Your task to perform on an android device: open the mobile data screen to see how much data has been used Image 0: 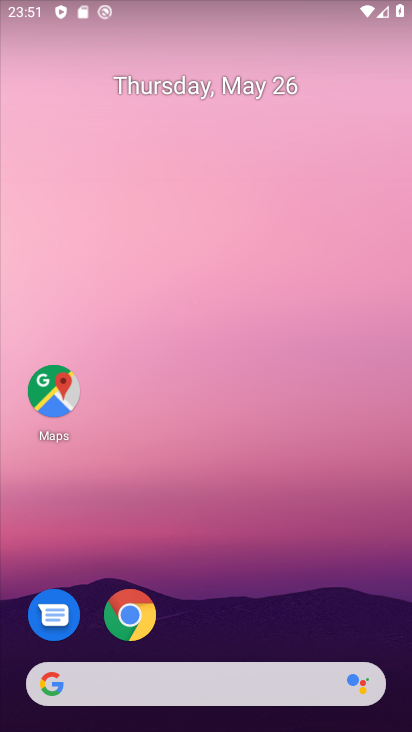
Step 0: drag from (374, 624) to (362, 254)
Your task to perform on an android device: open the mobile data screen to see how much data has been used Image 1: 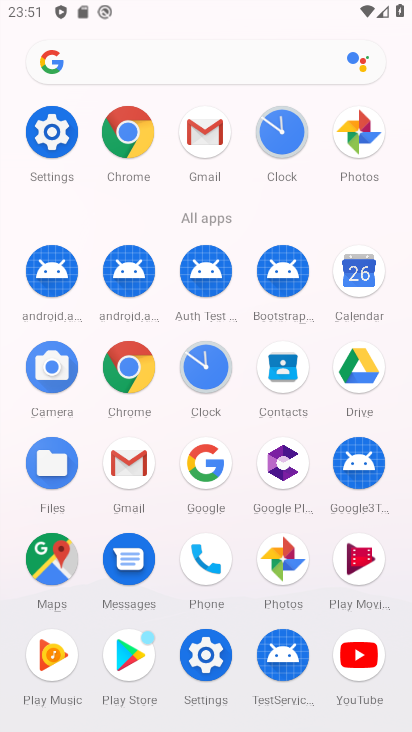
Step 1: click (52, 143)
Your task to perform on an android device: open the mobile data screen to see how much data has been used Image 2: 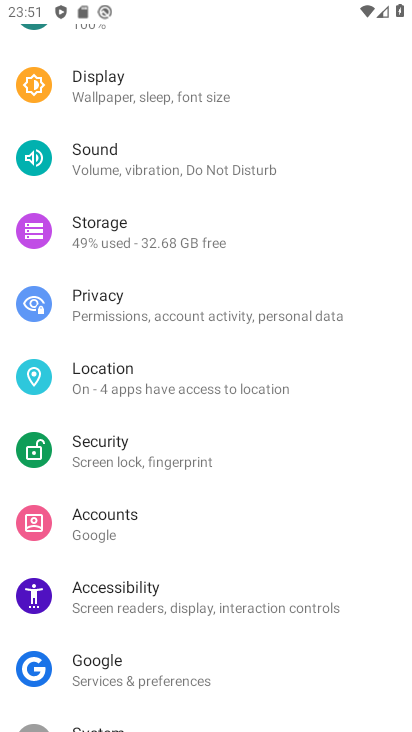
Step 2: drag from (340, 238) to (335, 398)
Your task to perform on an android device: open the mobile data screen to see how much data has been used Image 3: 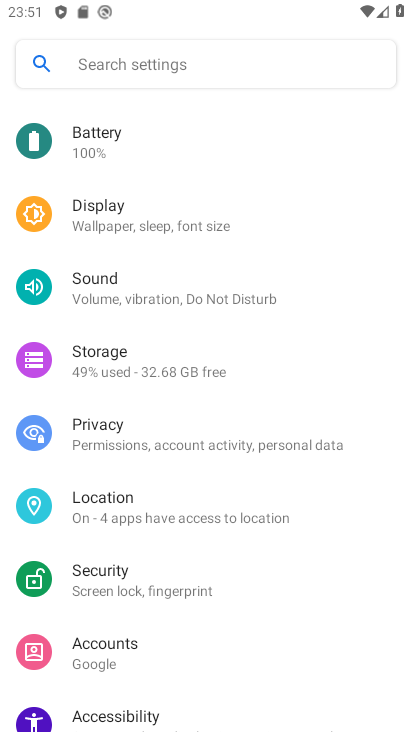
Step 3: drag from (340, 204) to (333, 353)
Your task to perform on an android device: open the mobile data screen to see how much data has been used Image 4: 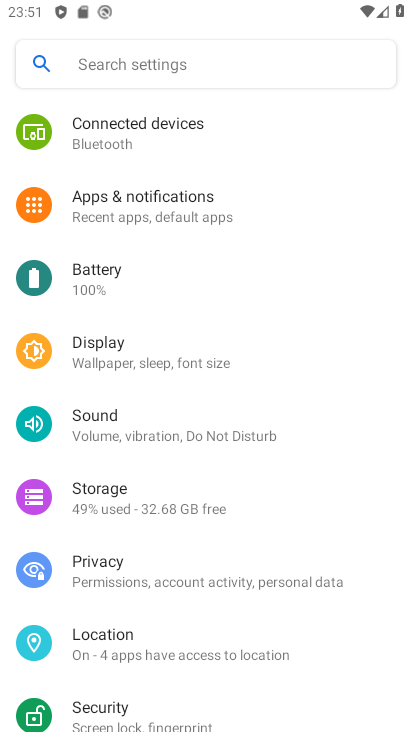
Step 4: drag from (341, 174) to (336, 299)
Your task to perform on an android device: open the mobile data screen to see how much data has been used Image 5: 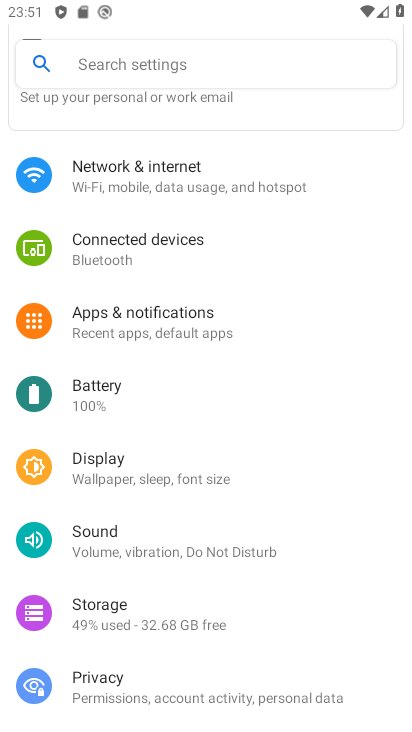
Step 5: drag from (347, 208) to (345, 341)
Your task to perform on an android device: open the mobile data screen to see how much data has been used Image 6: 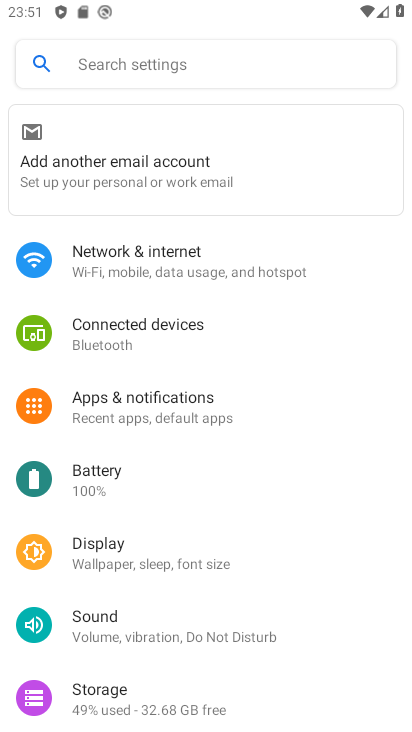
Step 6: drag from (321, 237) to (322, 346)
Your task to perform on an android device: open the mobile data screen to see how much data has been used Image 7: 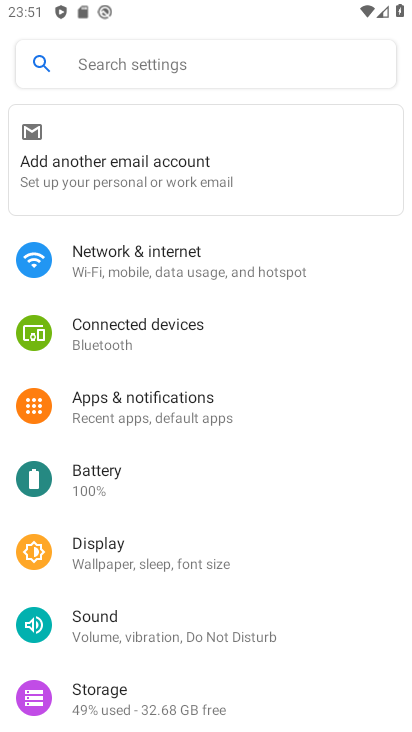
Step 7: click (230, 262)
Your task to perform on an android device: open the mobile data screen to see how much data has been used Image 8: 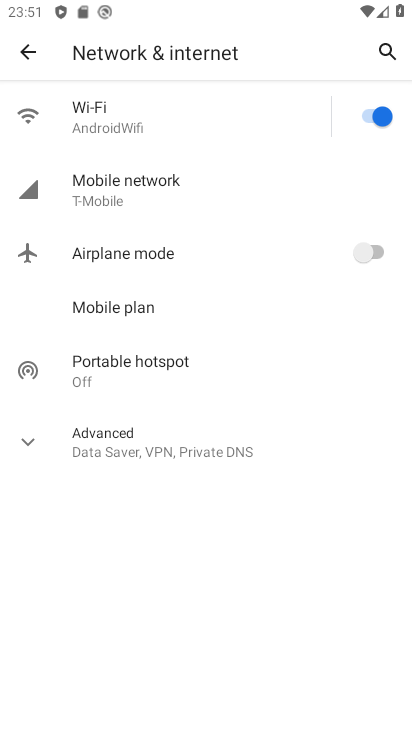
Step 8: click (129, 204)
Your task to perform on an android device: open the mobile data screen to see how much data has been used Image 9: 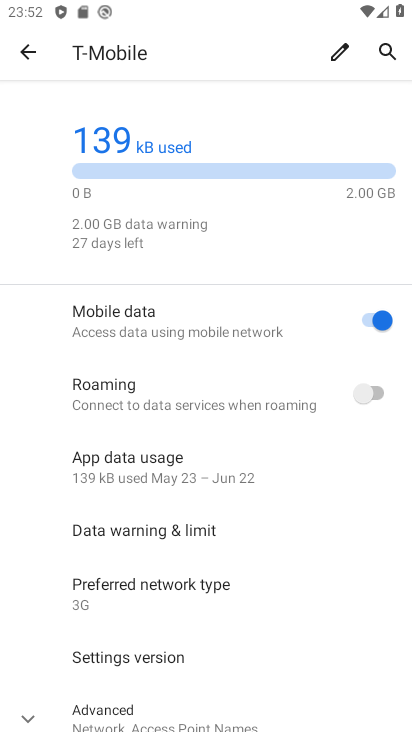
Step 9: drag from (307, 533) to (312, 379)
Your task to perform on an android device: open the mobile data screen to see how much data has been used Image 10: 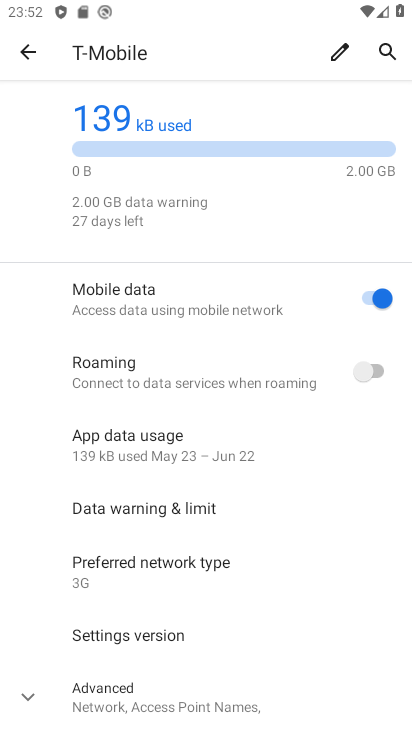
Step 10: click (175, 438)
Your task to perform on an android device: open the mobile data screen to see how much data has been used Image 11: 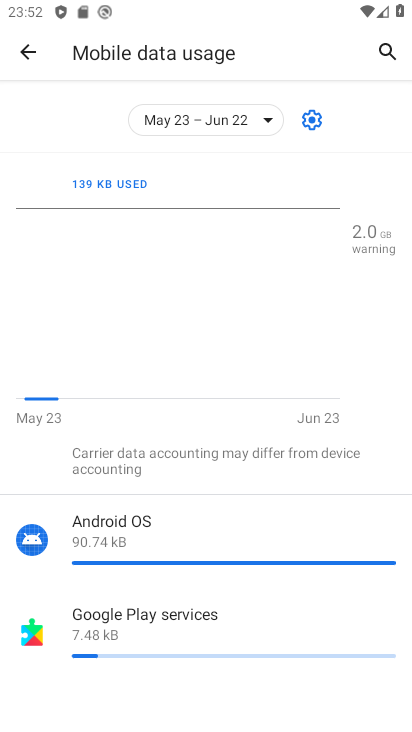
Step 11: task complete